Your task to perform on an android device: Open Android settings Image 0: 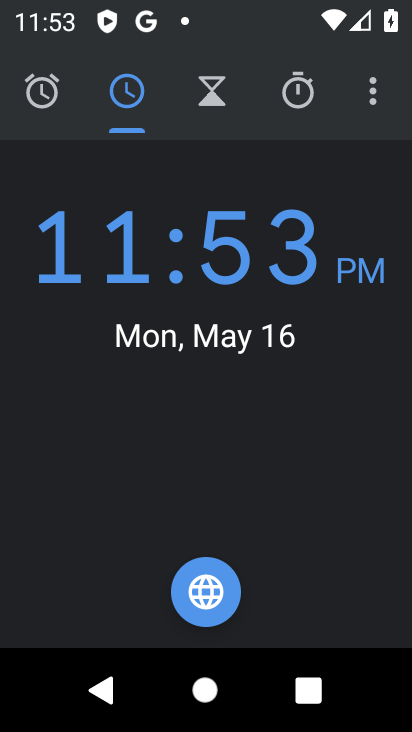
Step 0: press home button
Your task to perform on an android device: Open Android settings Image 1: 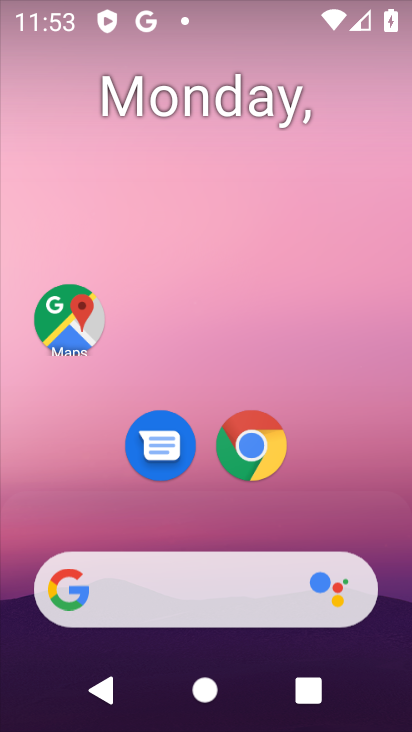
Step 1: drag from (124, 553) to (191, 29)
Your task to perform on an android device: Open Android settings Image 2: 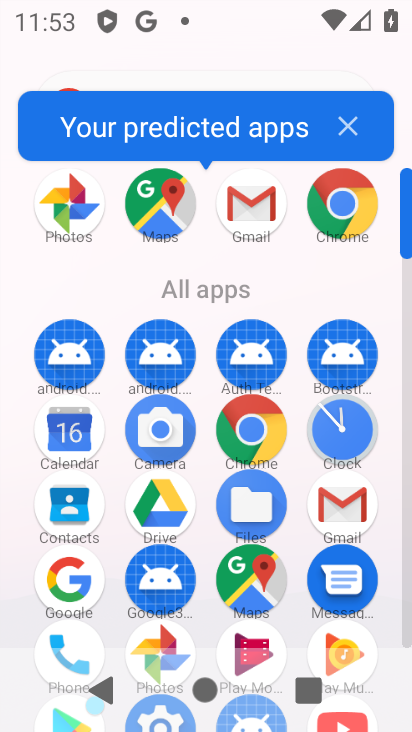
Step 2: drag from (176, 640) to (218, 392)
Your task to perform on an android device: Open Android settings Image 3: 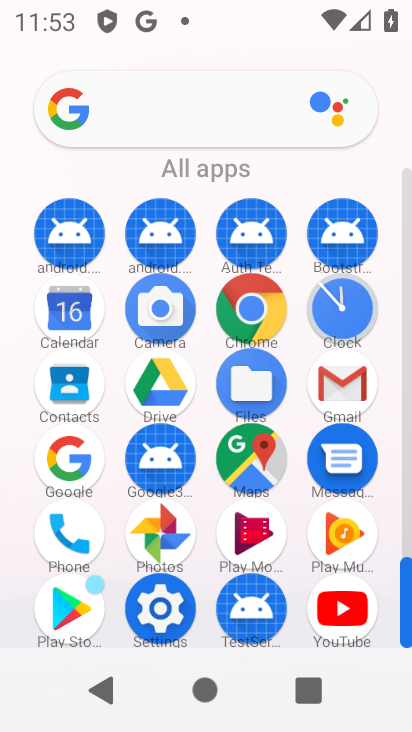
Step 3: click (162, 620)
Your task to perform on an android device: Open Android settings Image 4: 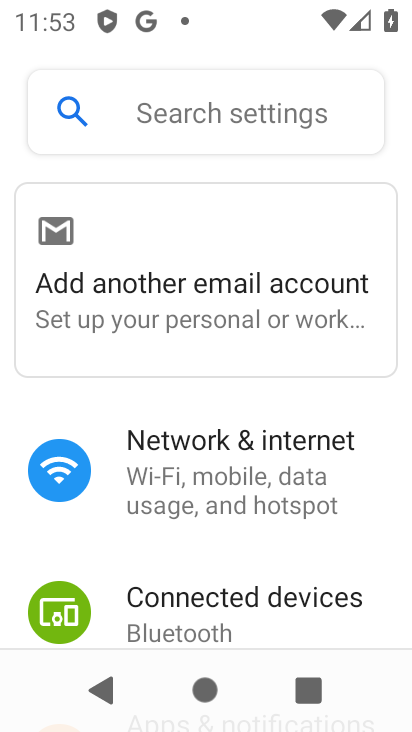
Step 4: task complete